Your task to perform on an android device: toggle pop-ups in chrome Image 0: 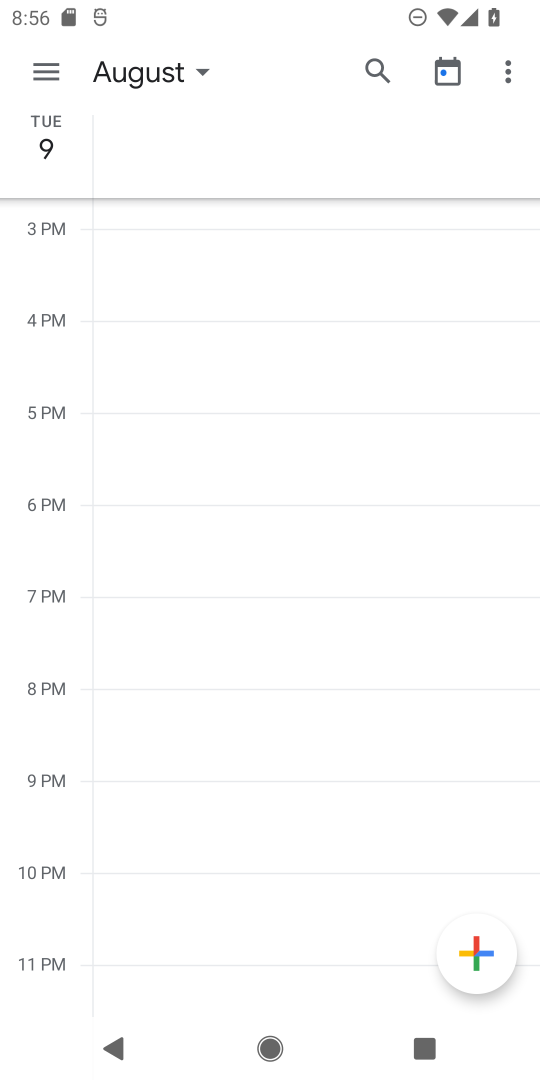
Step 0: press home button
Your task to perform on an android device: toggle pop-ups in chrome Image 1: 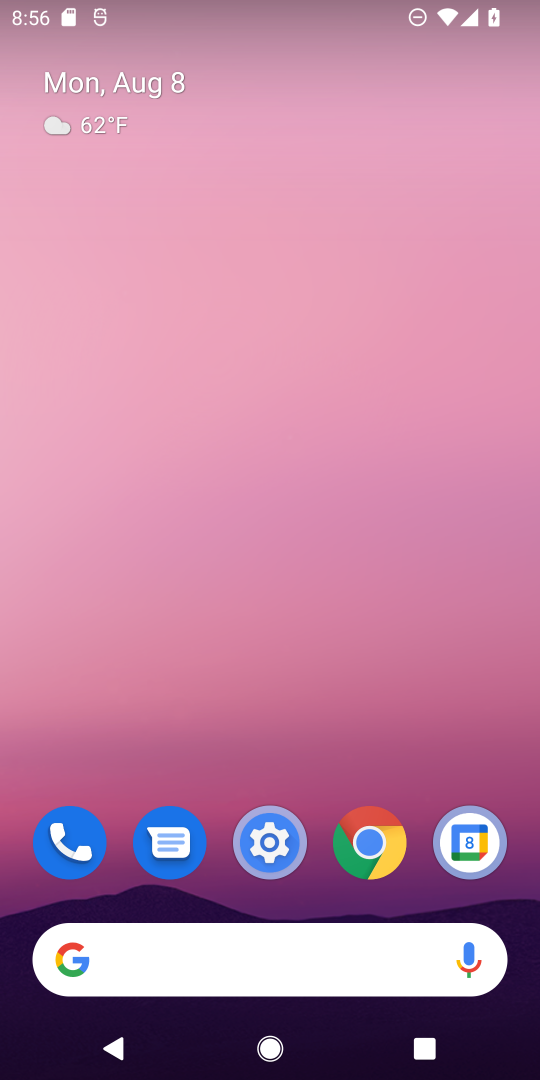
Step 1: click (370, 842)
Your task to perform on an android device: toggle pop-ups in chrome Image 2: 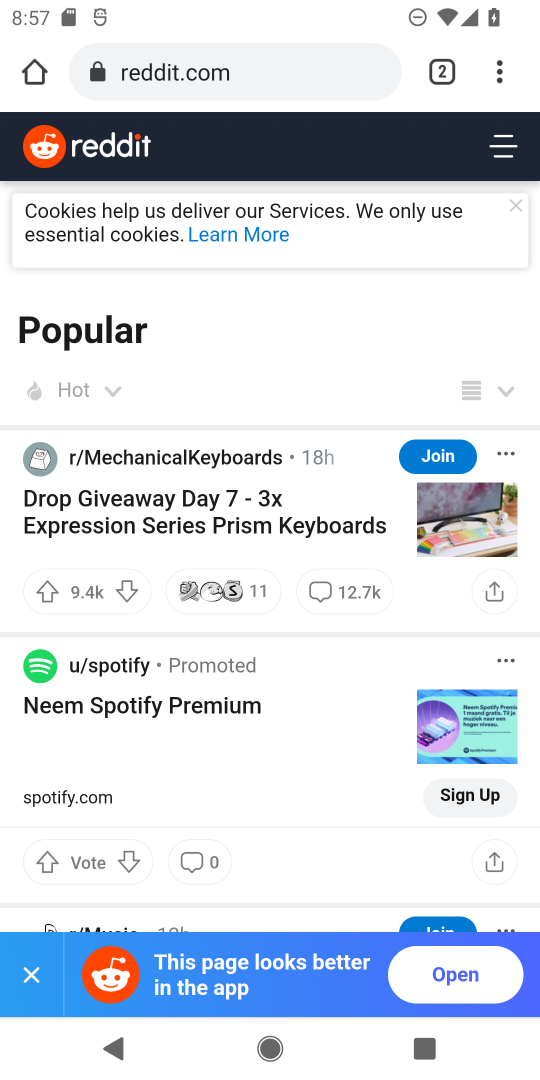
Step 2: click (497, 70)
Your task to perform on an android device: toggle pop-ups in chrome Image 3: 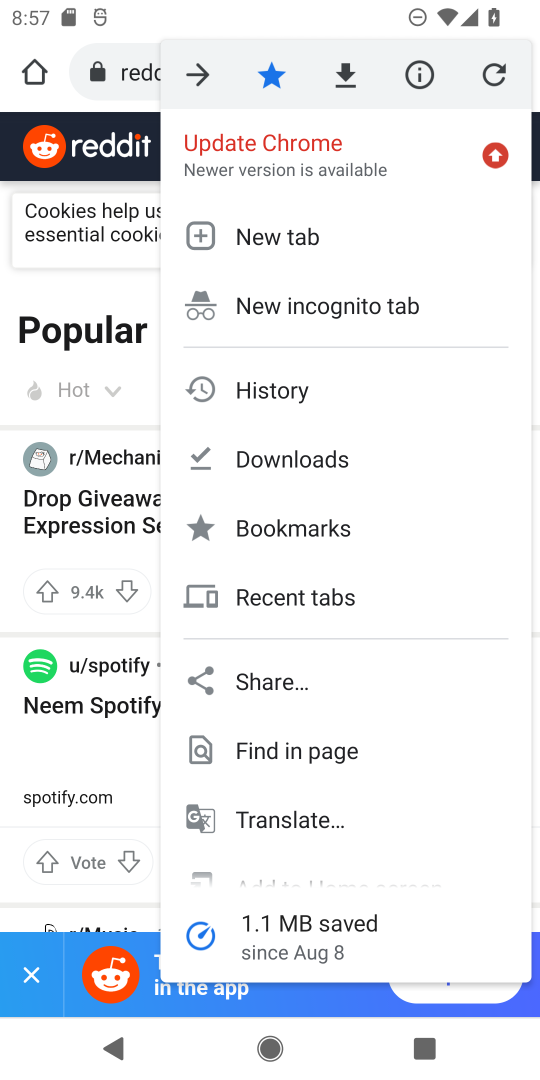
Step 3: drag from (384, 784) to (365, 205)
Your task to perform on an android device: toggle pop-ups in chrome Image 4: 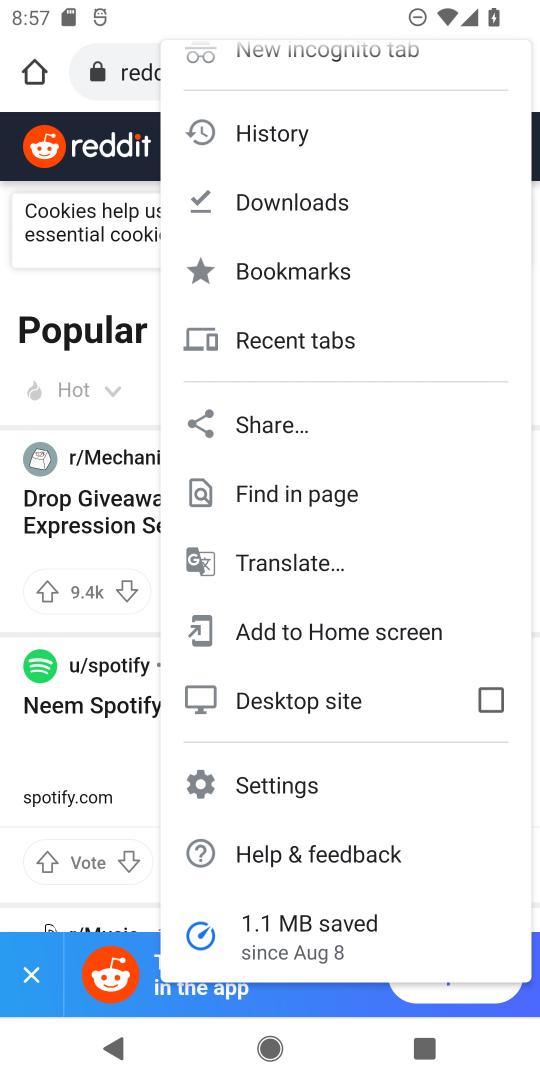
Step 4: click (317, 784)
Your task to perform on an android device: toggle pop-ups in chrome Image 5: 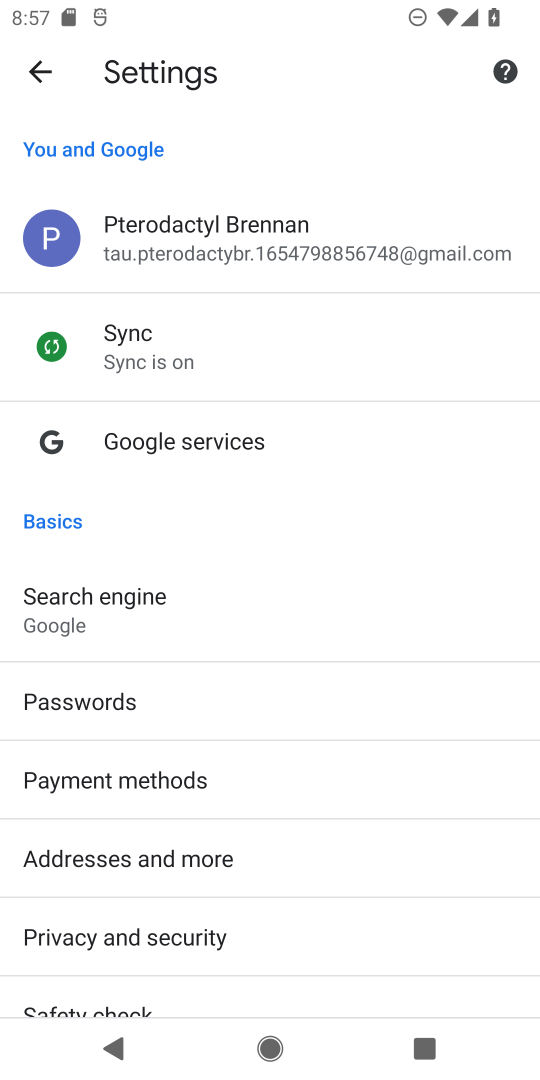
Step 5: drag from (298, 892) to (283, 241)
Your task to perform on an android device: toggle pop-ups in chrome Image 6: 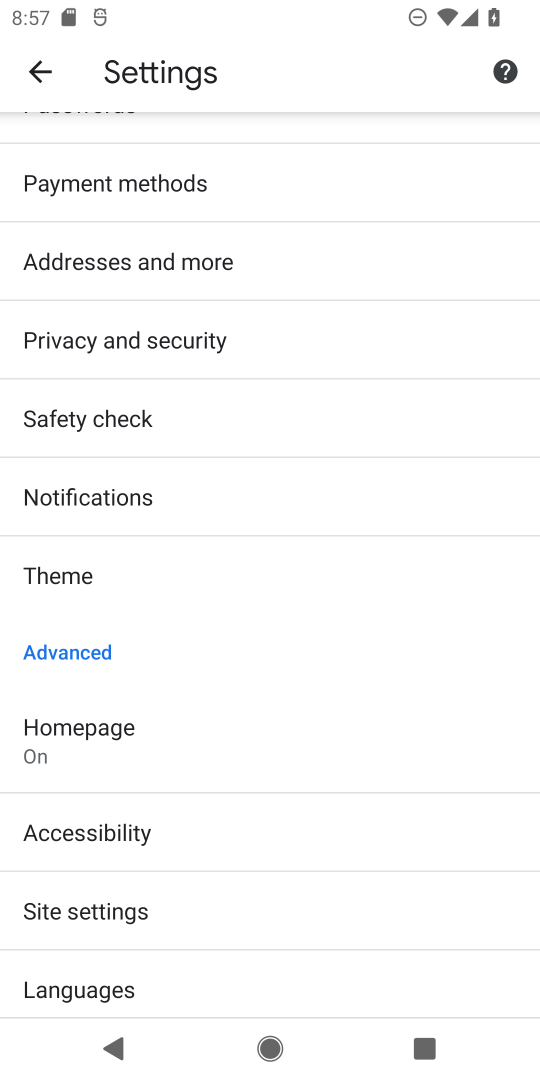
Step 6: click (231, 898)
Your task to perform on an android device: toggle pop-ups in chrome Image 7: 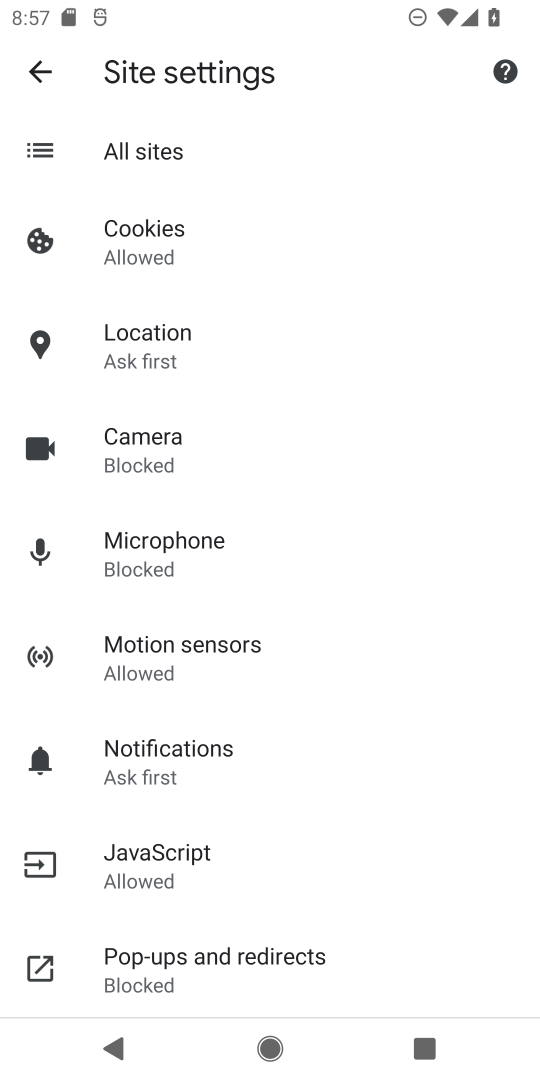
Step 7: click (278, 958)
Your task to perform on an android device: toggle pop-ups in chrome Image 8: 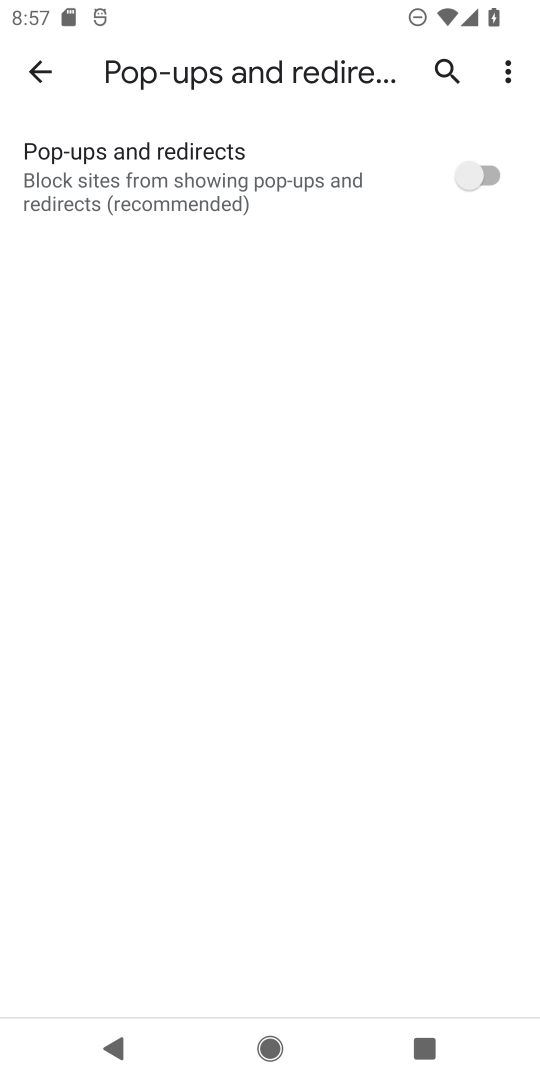
Step 8: click (475, 169)
Your task to perform on an android device: toggle pop-ups in chrome Image 9: 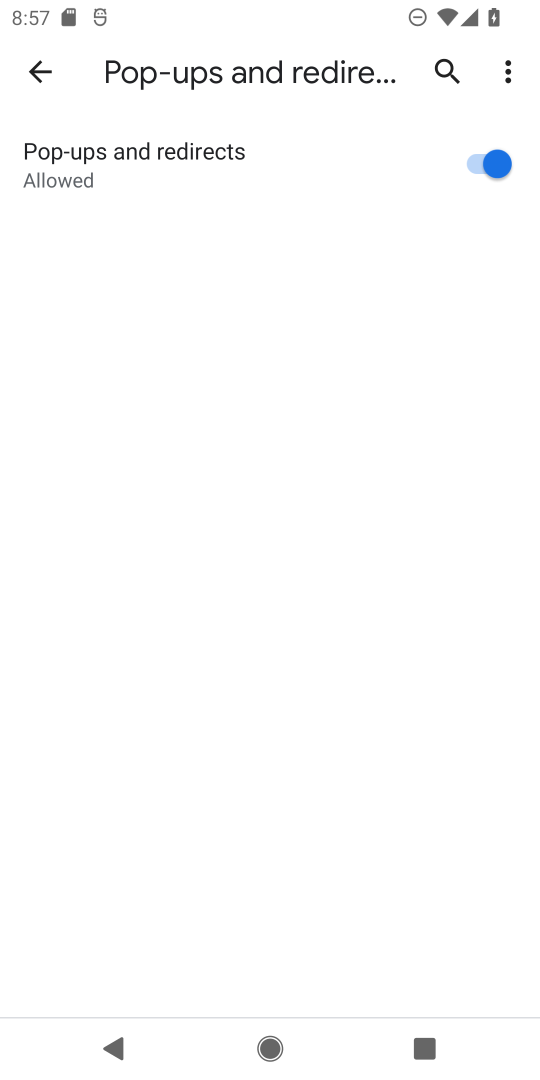
Step 9: task complete